Your task to perform on an android device: Toggle the flashlight Image 0: 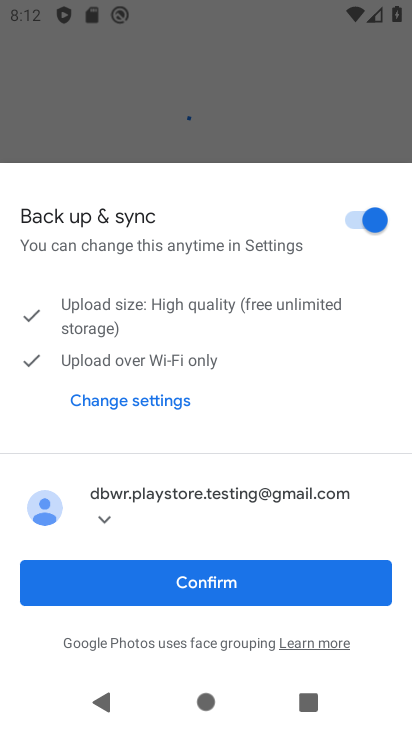
Step 0: press home button
Your task to perform on an android device: Toggle the flashlight Image 1: 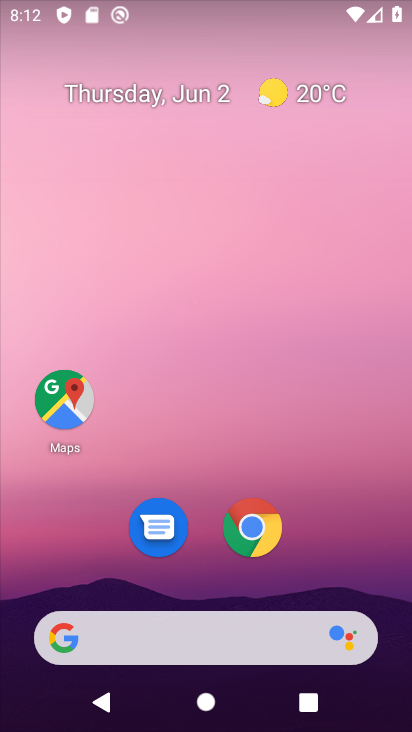
Step 1: drag from (316, 552) to (189, 0)
Your task to perform on an android device: Toggle the flashlight Image 2: 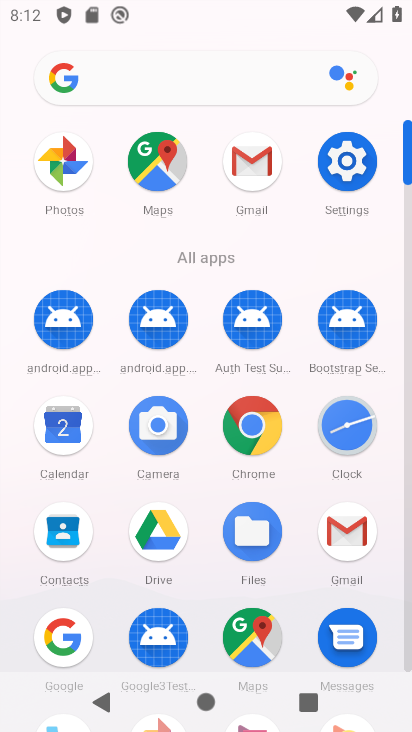
Step 2: click (334, 147)
Your task to perform on an android device: Toggle the flashlight Image 3: 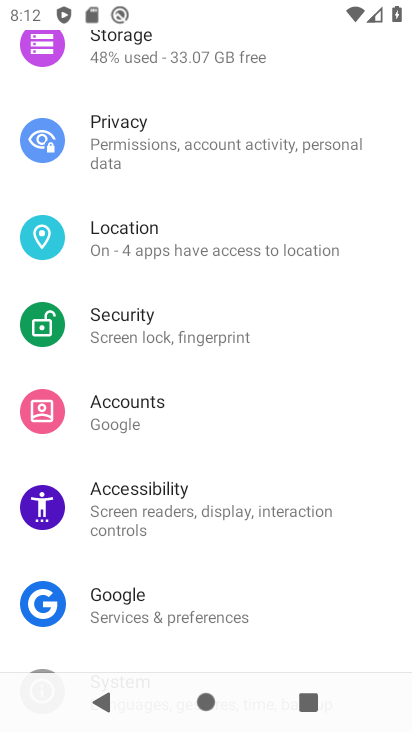
Step 3: task complete